Your task to perform on an android device: turn on location history Image 0: 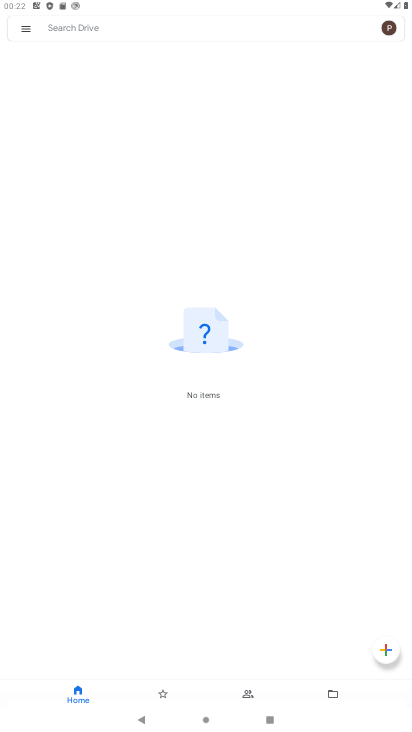
Step 0: press home button
Your task to perform on an android device: turn on location history Image 1: 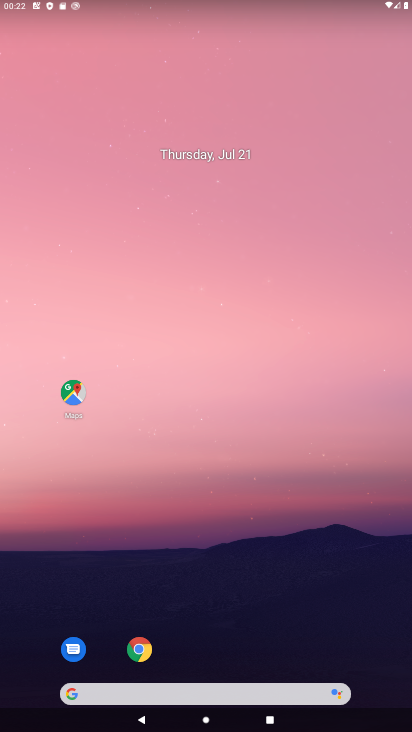
Step 1: drag from (242, 714) to (269, 113)
Your task to perform on an android device: turn on location history Image 2: 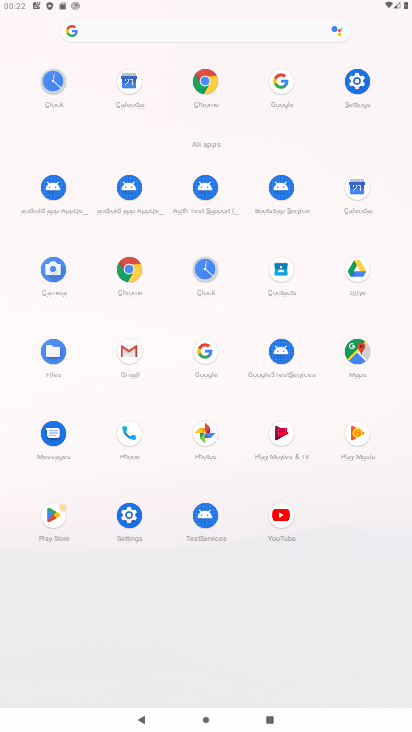
Step 2: click (354, 81)
Your task to perform on an android device: turn on location history Image 3: 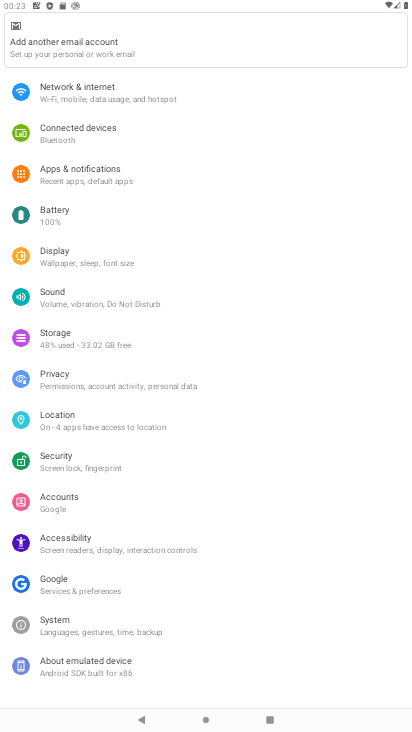
Step 3: click (57, 421)
Your task to perform on an android device: turn on location history Image 4: 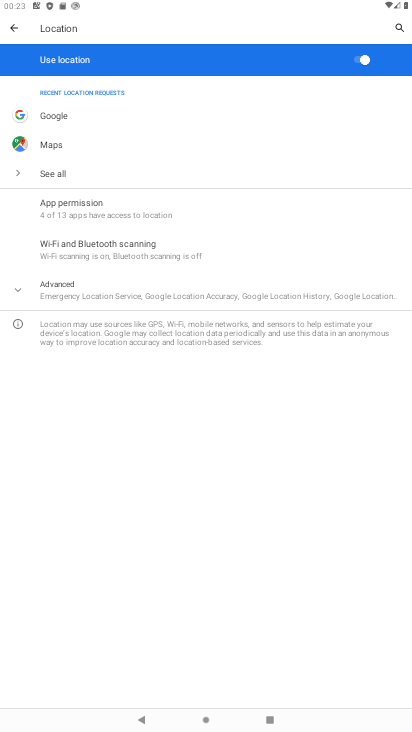
Step 4: click (62, 290)
Your task to perform on an android device: turn on location history Image 5: 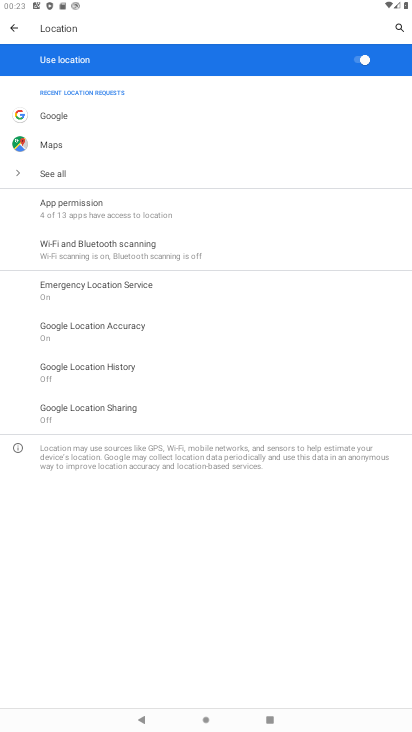
Step 5: click (110, 363)
Your task to perform on an android device: turn on location history Image 6: 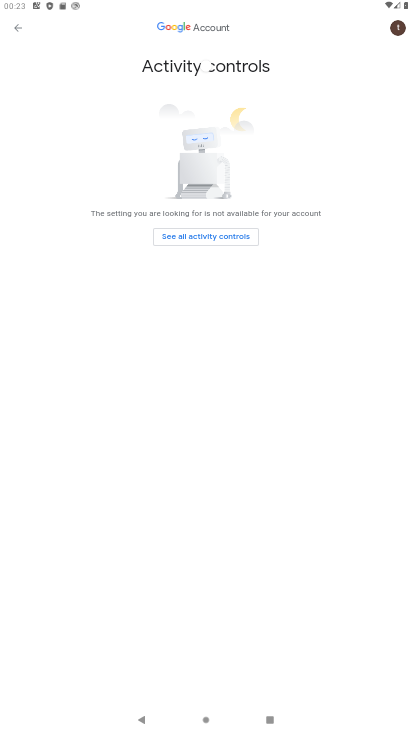
Step 6: click (230, 240)
Your task to perform on an android device: turn on location history Image 7: 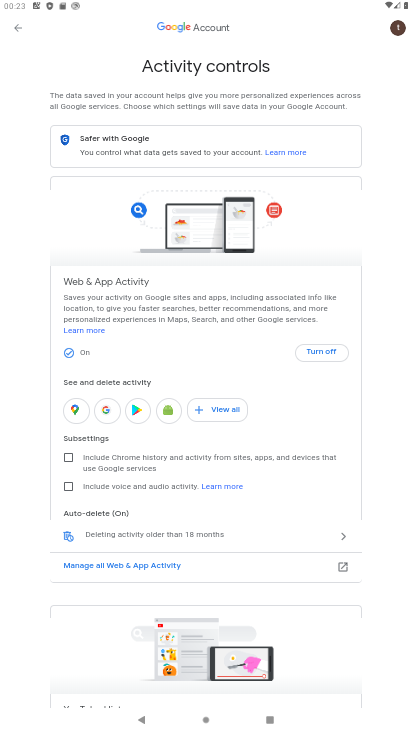
Step 7: task complete